Your task to perform on an android device: see creations saved in the google photos Image 0: 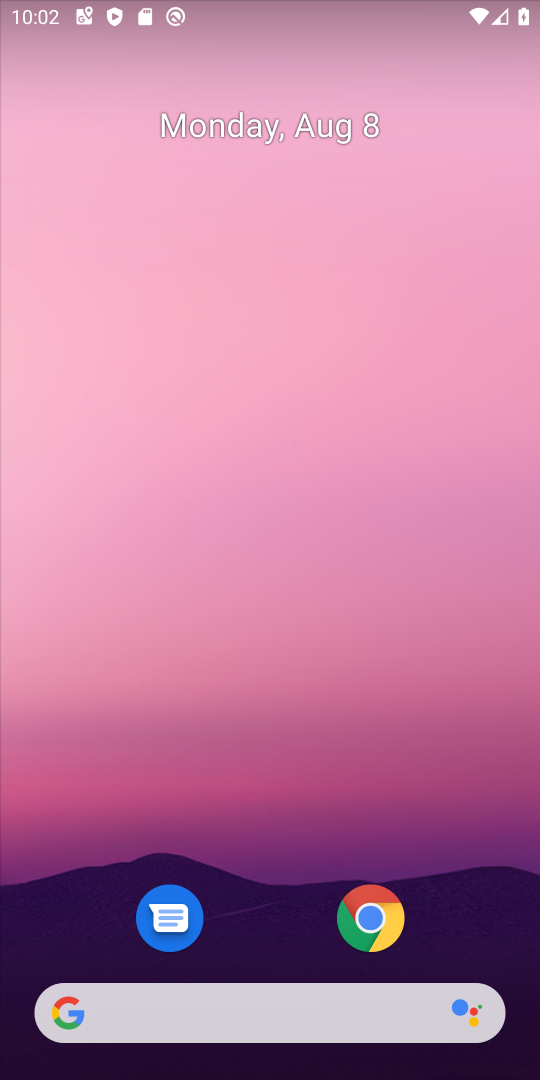
Step 0: drag from (284, 952) to (192, 214)
Your task to perform on an android device: see creations saved in the google photos Image 1: 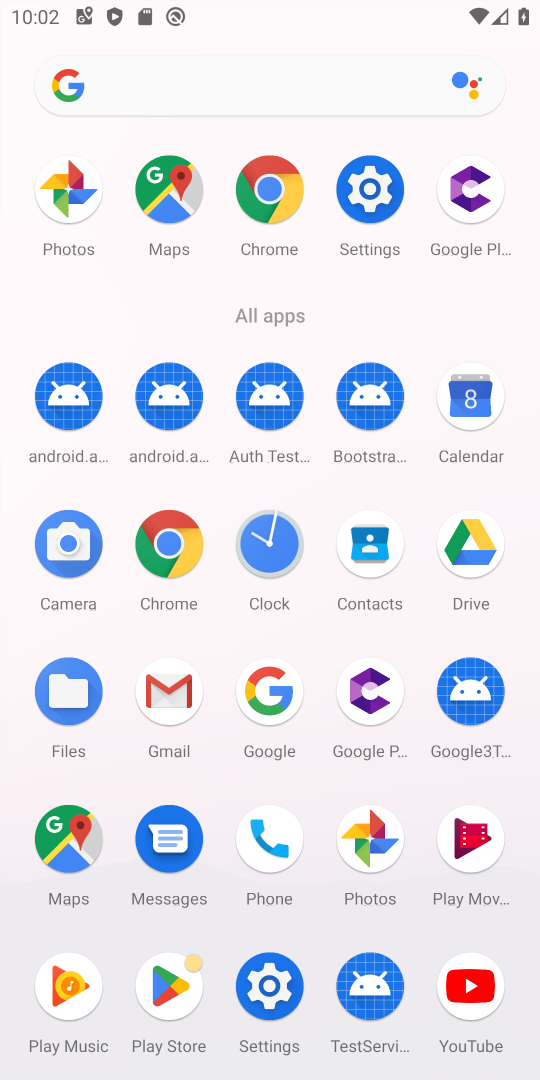
Step 1: click (406, 834)
Your task to perform on an android device: see creations saved in the google photos Image 2: 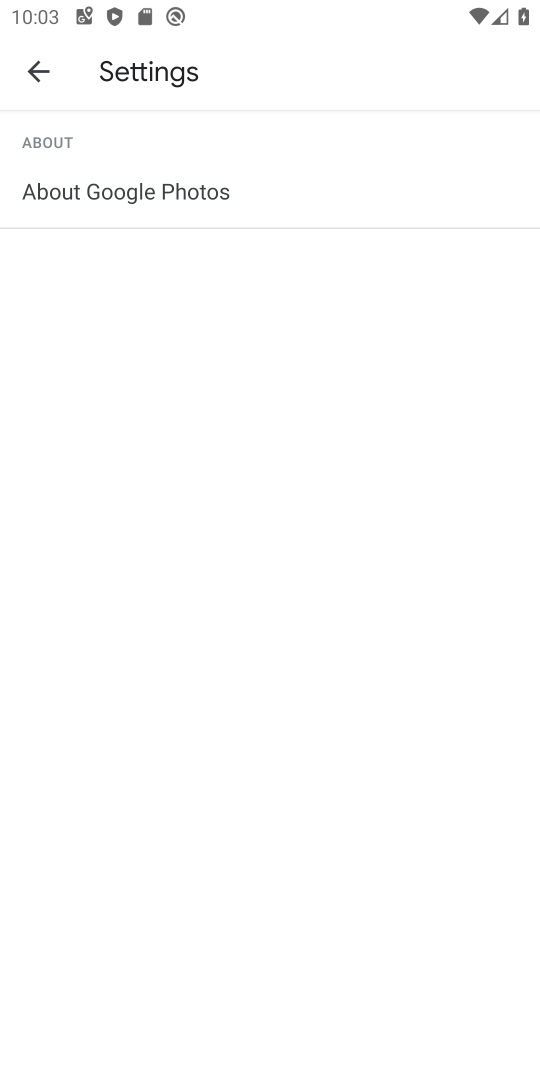
Step 2: click (35, 82)
Your task to perform on an android device: see creations saved in the google photos Image 3: 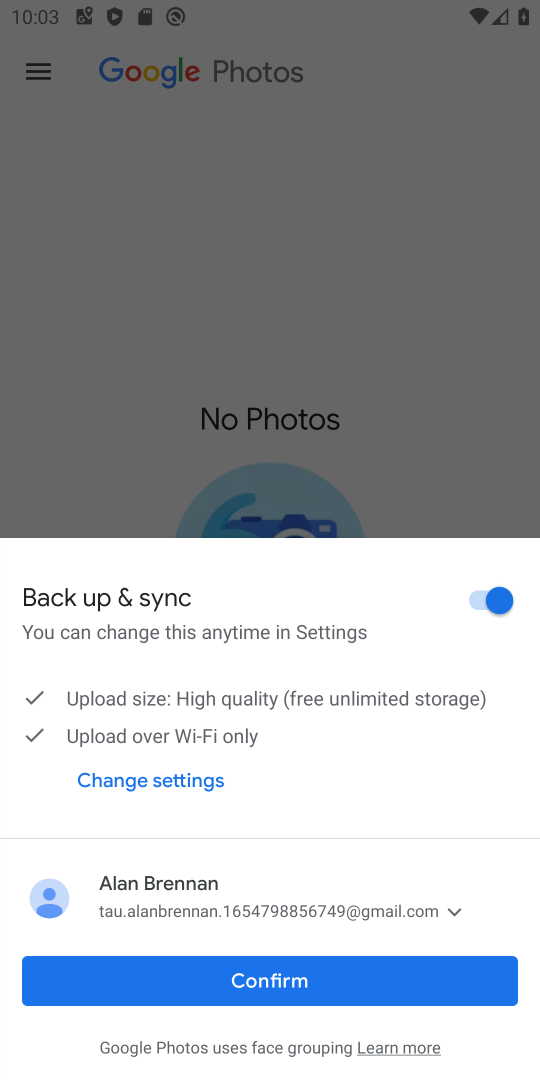
Step 3: click (265, 966)
Your task to perform on an android device: see creations saved in the google photos Image 4: 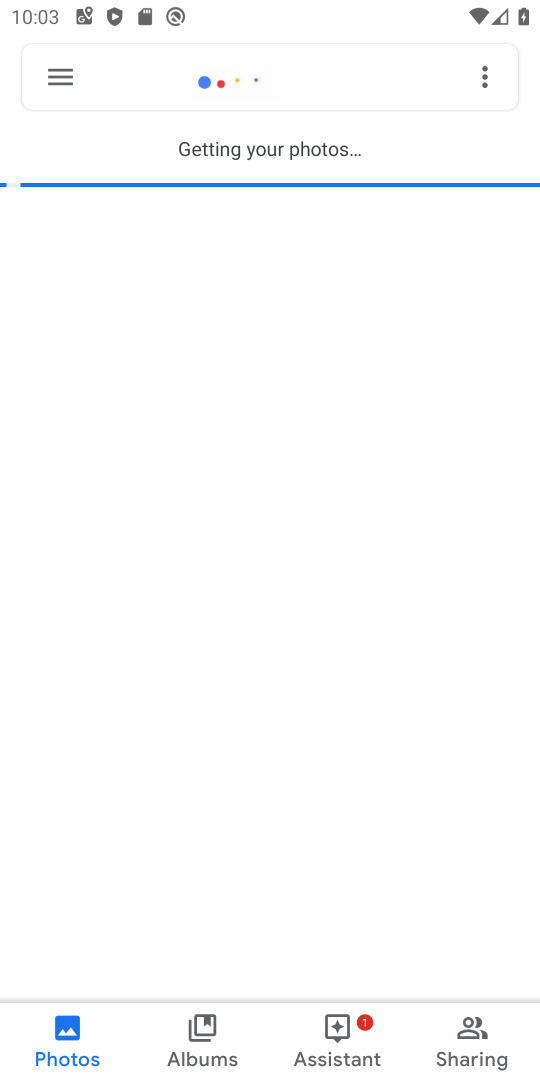
Step 4: click (282, 75)
Your task to perform on an android device: see creations saved in the google photos Image 5: 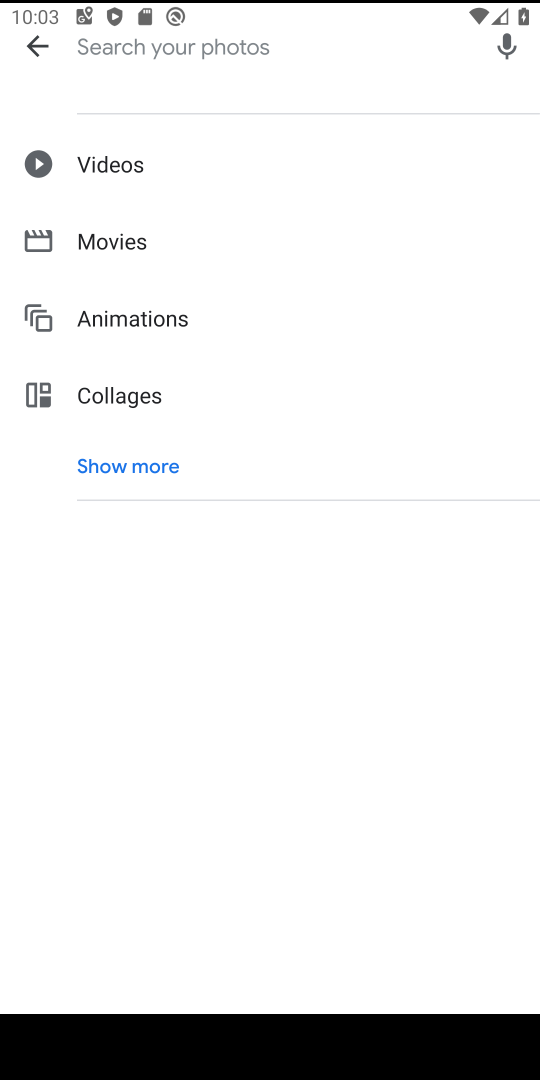
Step 5: click (123, 453)
Your task to perform on an android device: see creations saved in the google photos Image 6: 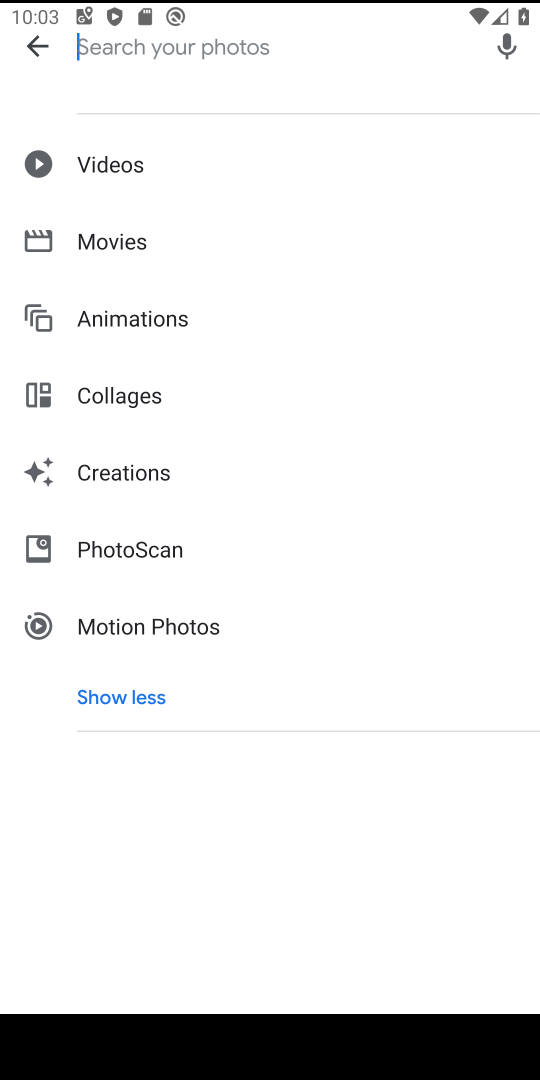
Step 6: click (114, 472)
Your task to perform on an android device: see creations saved in the google photos Image 7: 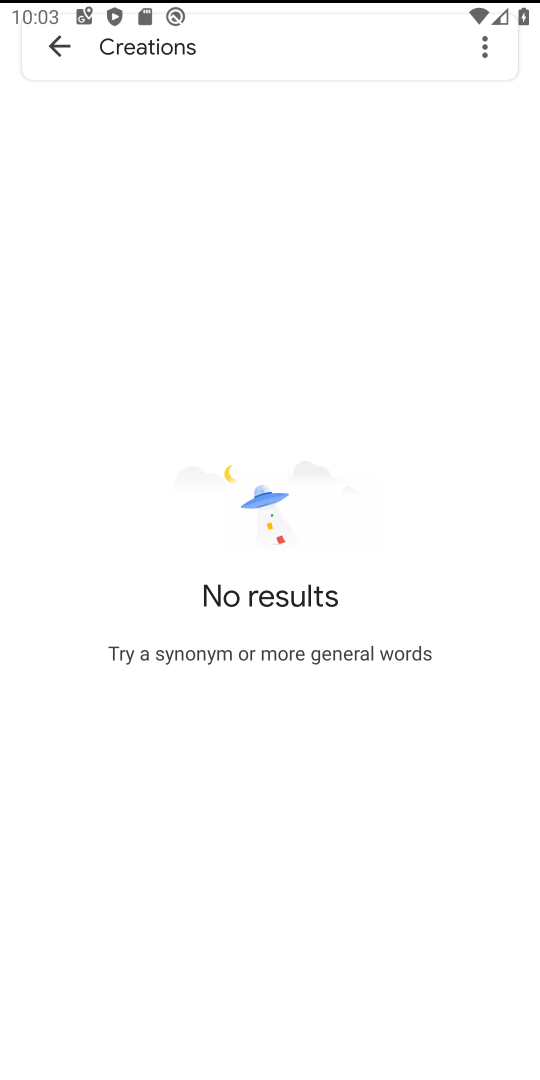
Step 7: task complete